Your task to perform on an android device: Open the Play Movies app and select the watchlist tab. Image 0: 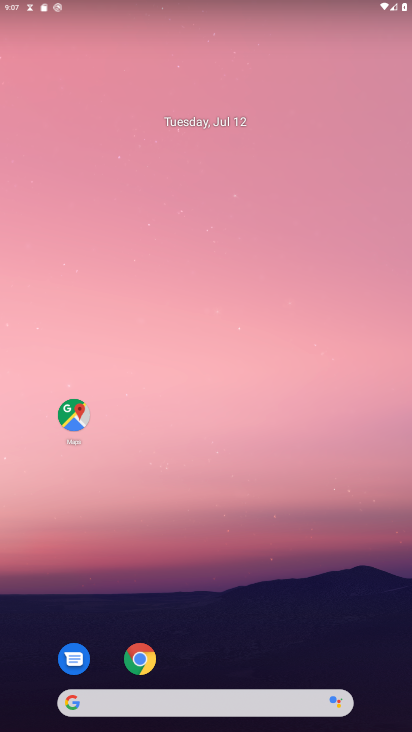
Step 0: drag from (147, 605) to (147, 250)
Your task to perform on an android device: Open the Play Movies app and select the watchlist tab. Image 1: 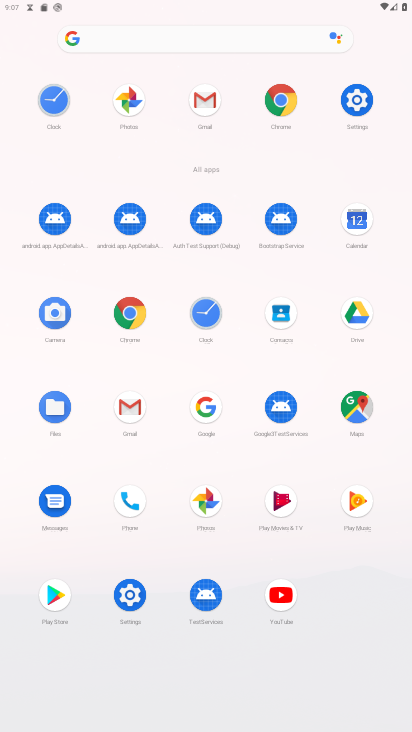
Step 1: click (277, 491)
Your task to perform on an android device: Open the Play Movies app and select the watchlist tab. Image 2: 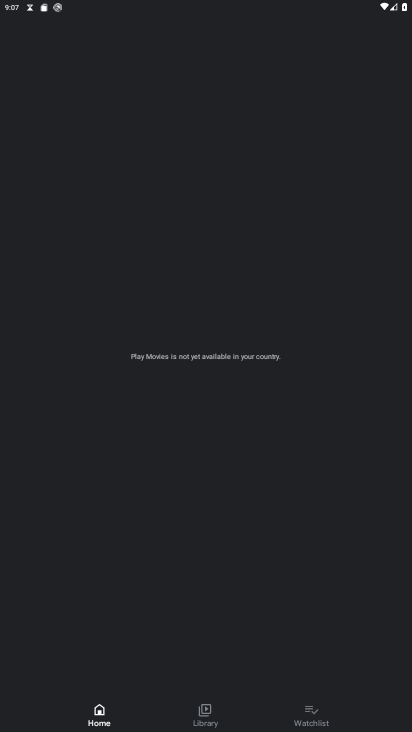
Step 2: click (306, 715)
Your task to perform on an android device: Open the Play Movies app and select the watchlist tab. Image 3: 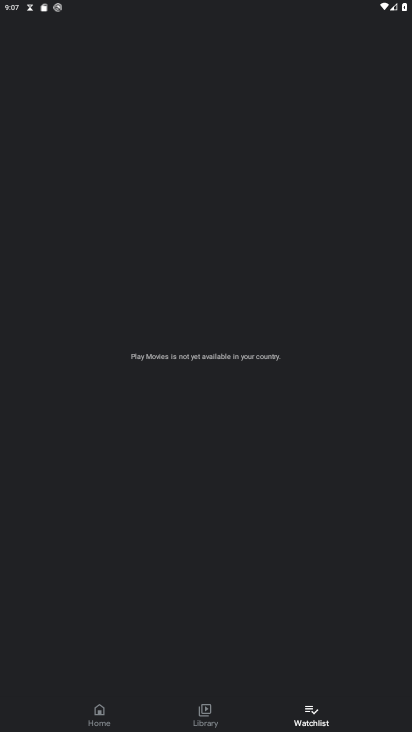
Step 3: task complete